Your task to perform on an android device: open chrome privacy settings Image 0: 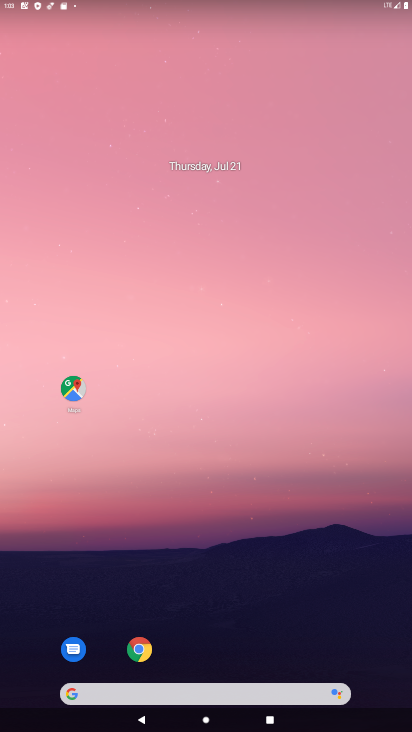
Step 0: click (140, 652)
Your task to perform on an android device: open chrome privacy settings Image 1: 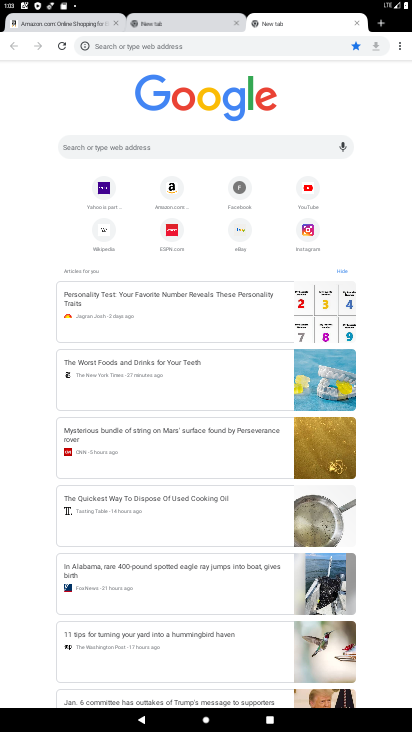
Step 1: click (402, 49)
Your task to perform on an android device: open chrome privacy settings Image 2: 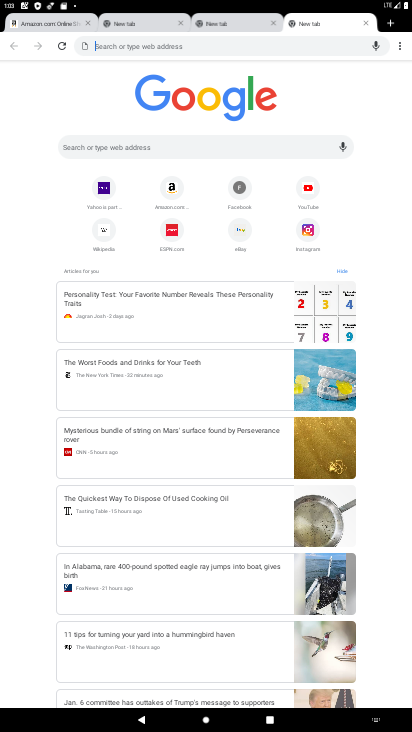
Step 2: click (400, 41)
Your task to perform on an android device: open chrome privacy settings Image 3: 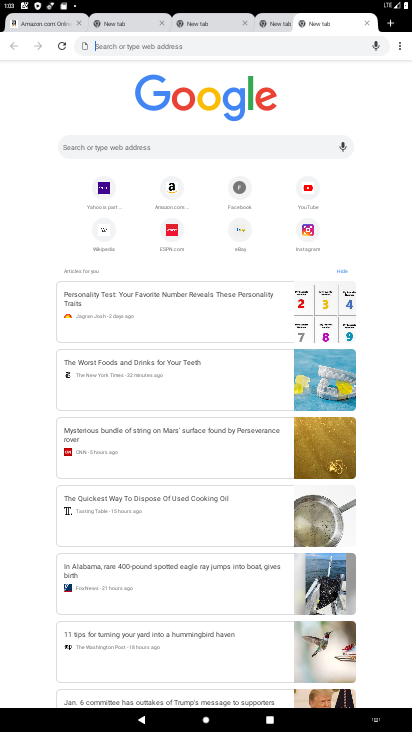
Step 3: click (397, 43)
Your task to perform on an android device: open chrome privacy settings Image 4: 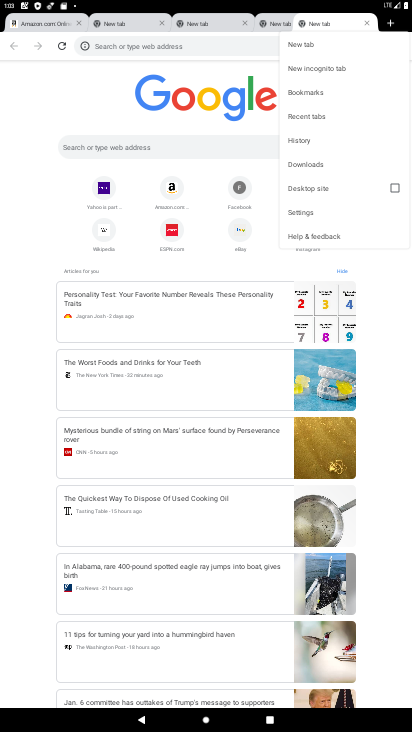
Step 4: click (312, 210)
Your task to perform on an android device: open chrome privacy settings Image 5: 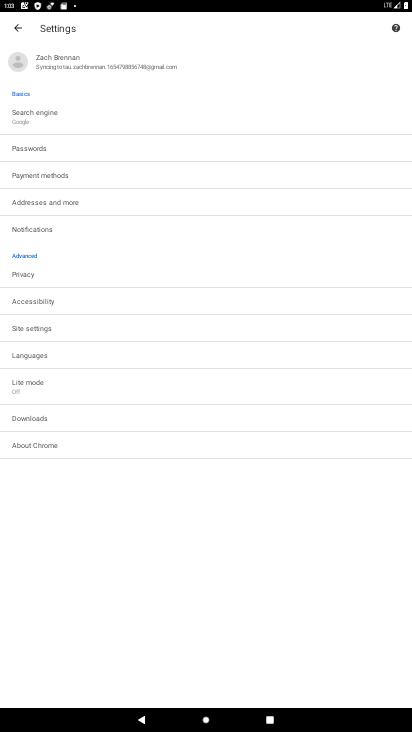
Step 5: click (17, 263)
Your task to perform on an android device: open chrome privacy settings Image 6: 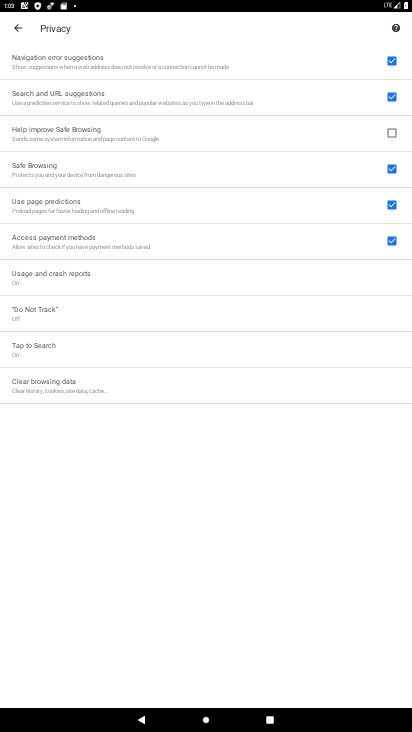
Step 6: task complete